Your task to perform on an android device: Search for pizza restaurants on Maps Image 0: 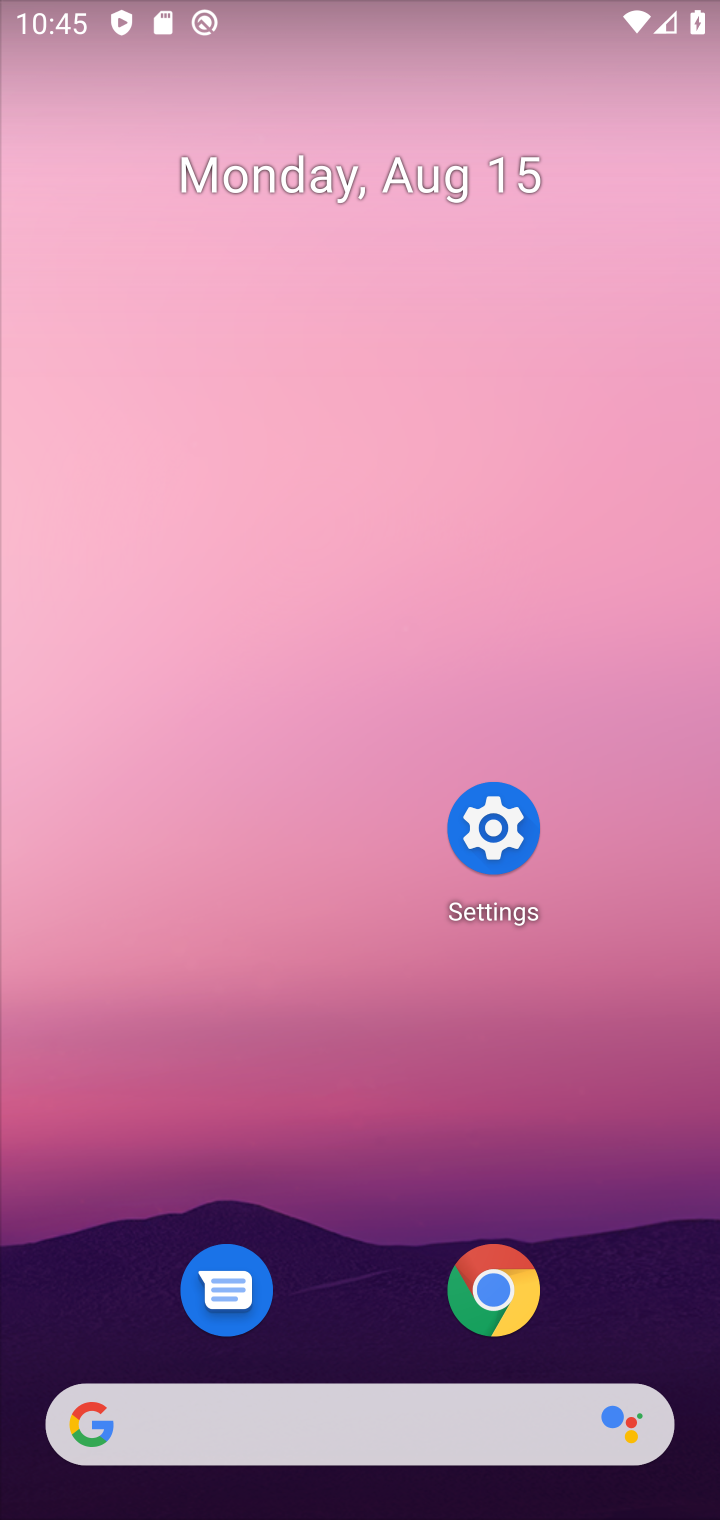
Step 0: press home button
Your task to perform on an android device: Search for pizza restaurants on Maps Image 1: 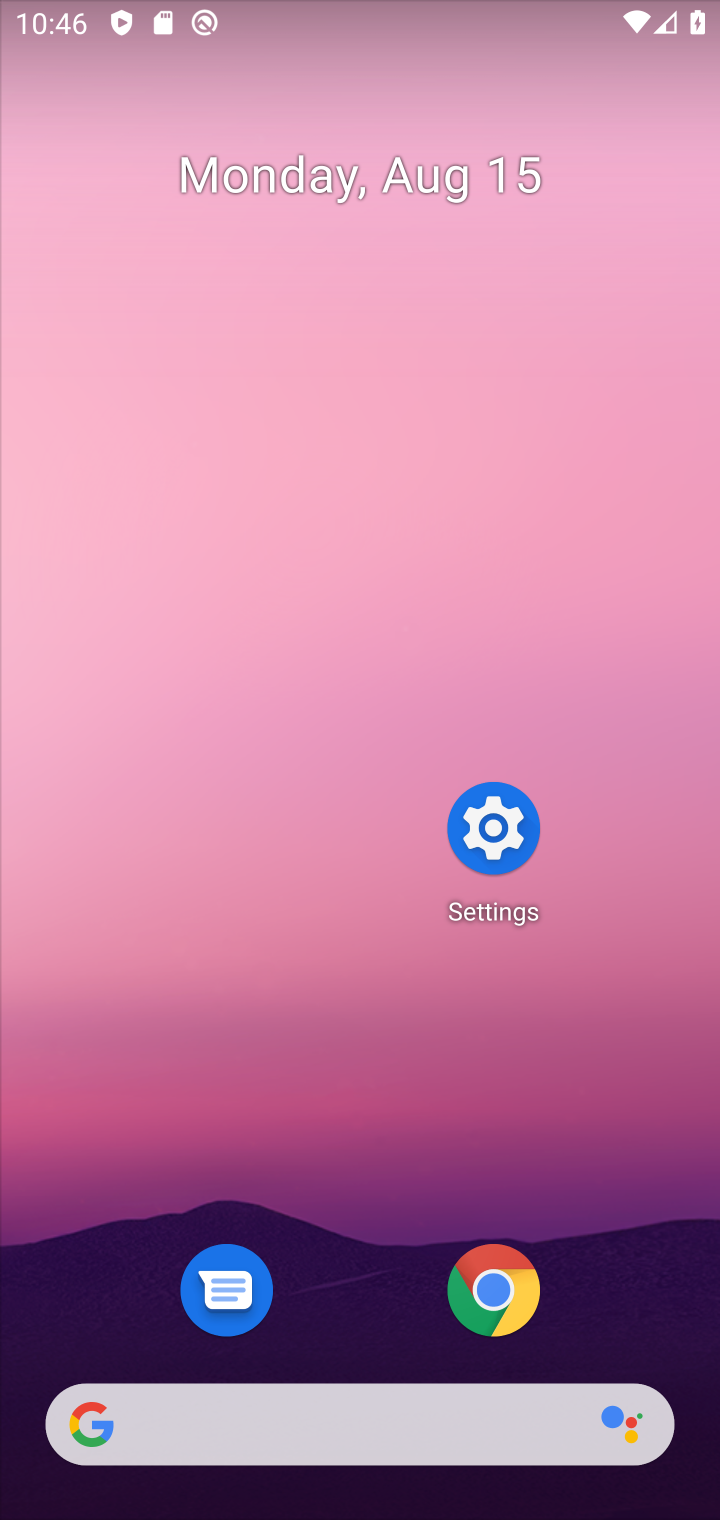
Step 1: drag from (328, 1427) to (638, 313)
Your task to perform on an android device: Search for pizza restaurants on Maps Image 2: 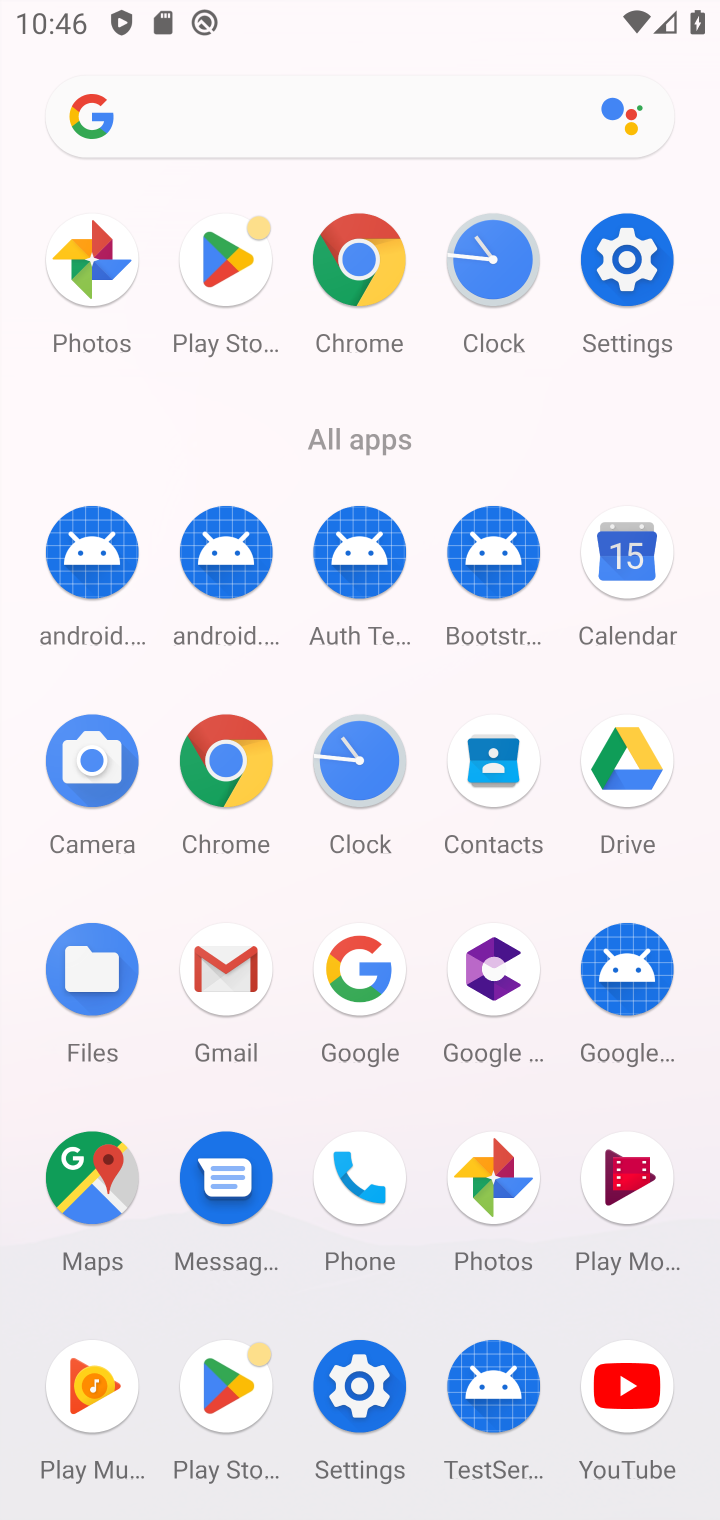
Step 2: click (84, 1191)
Your task to perform on an android device: Search for pizza restaurants on Maps Image 3: 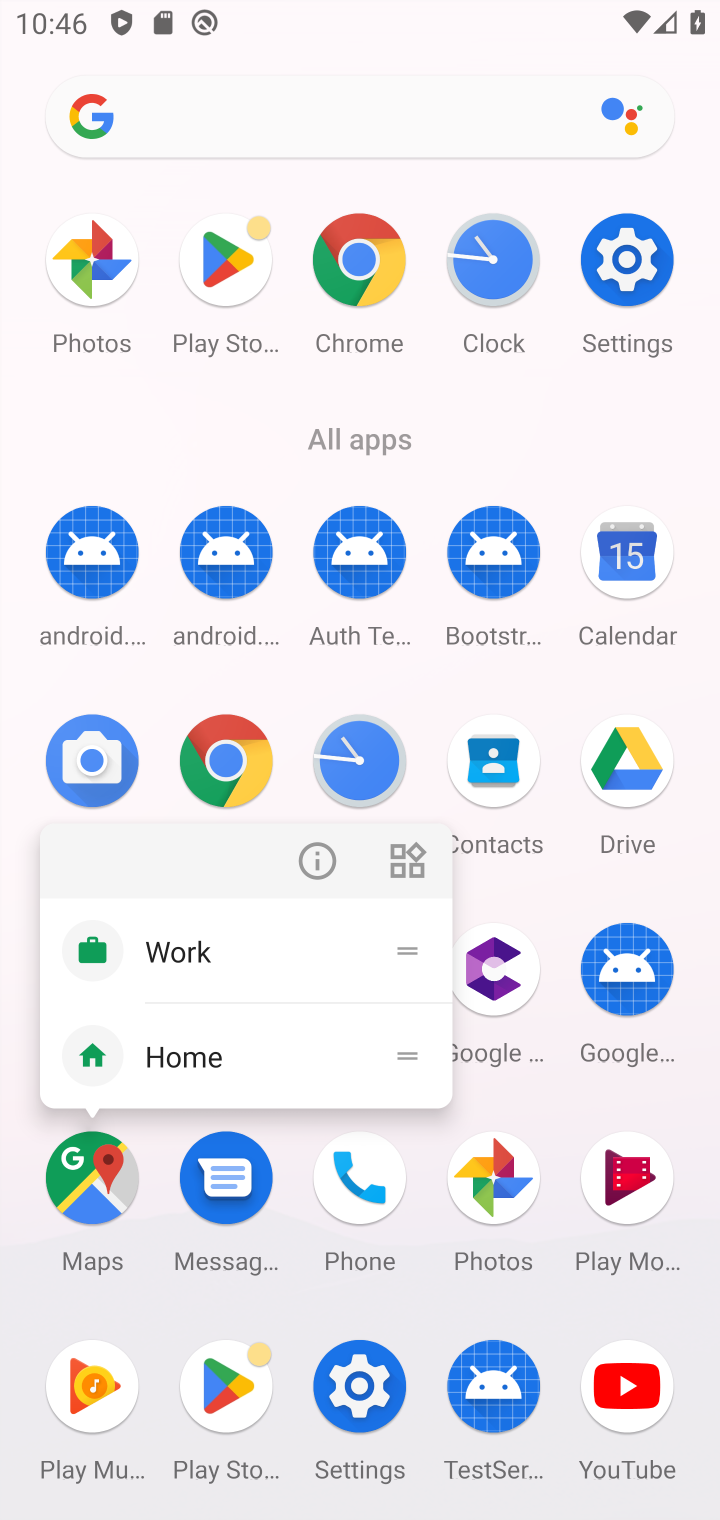
Step 3: click (84, 1196)
Your task to perform on an android device: Search for pizza restaurants on Maps Image 4: 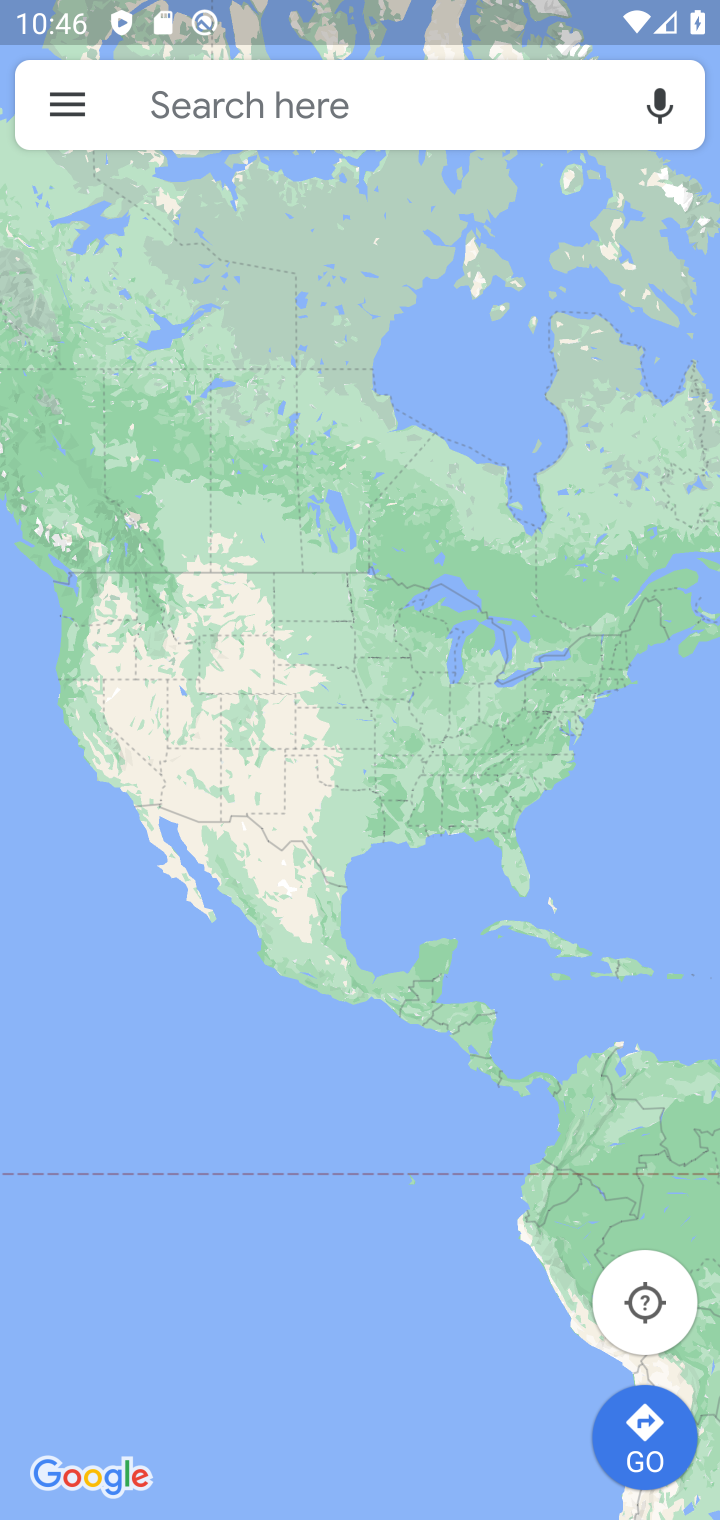
Step 4: click (359, 104)
Your task to perform on an android device: Search for pizza restaurants on Maps Image 5: 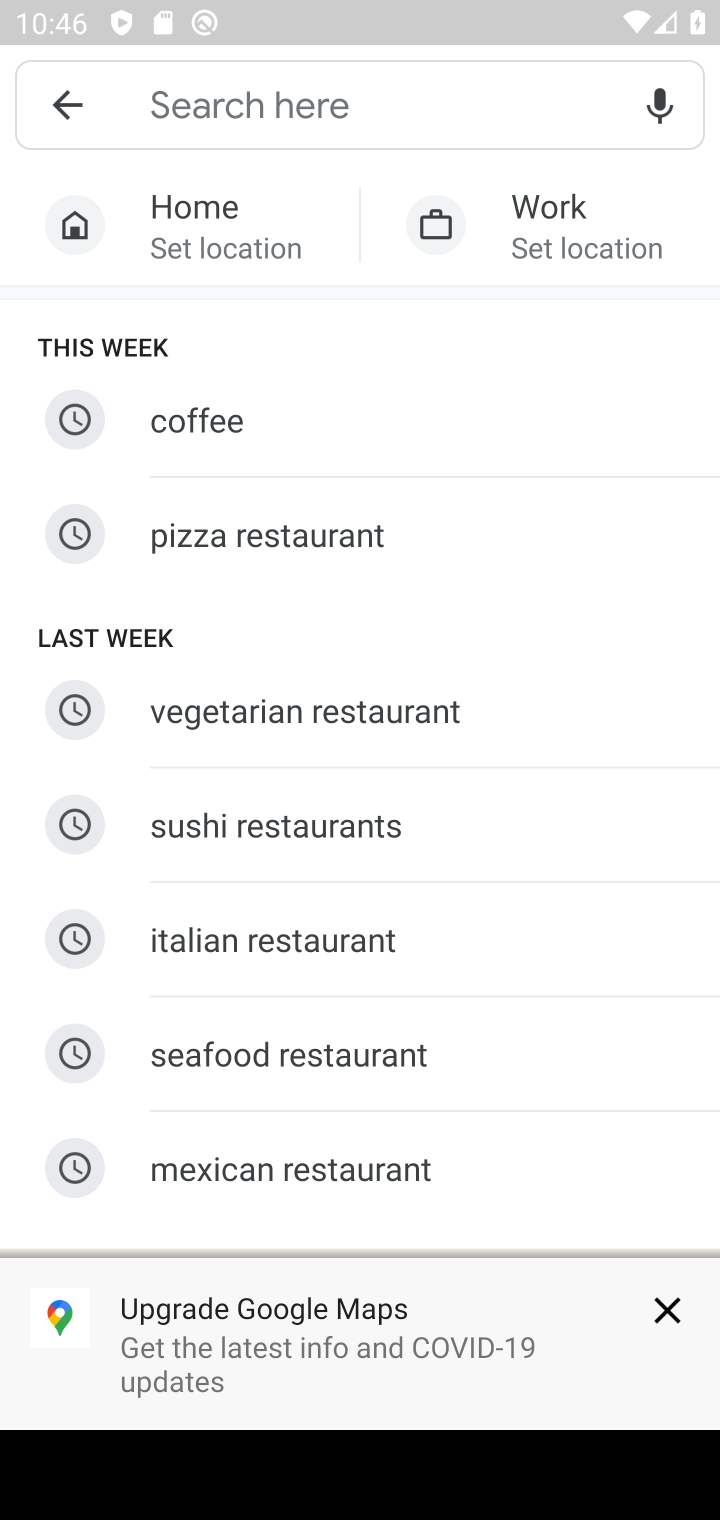
Step 5: click (348, 539)
Your task to perform on an android device: Search for pizza restaurants on Maps Image 6: 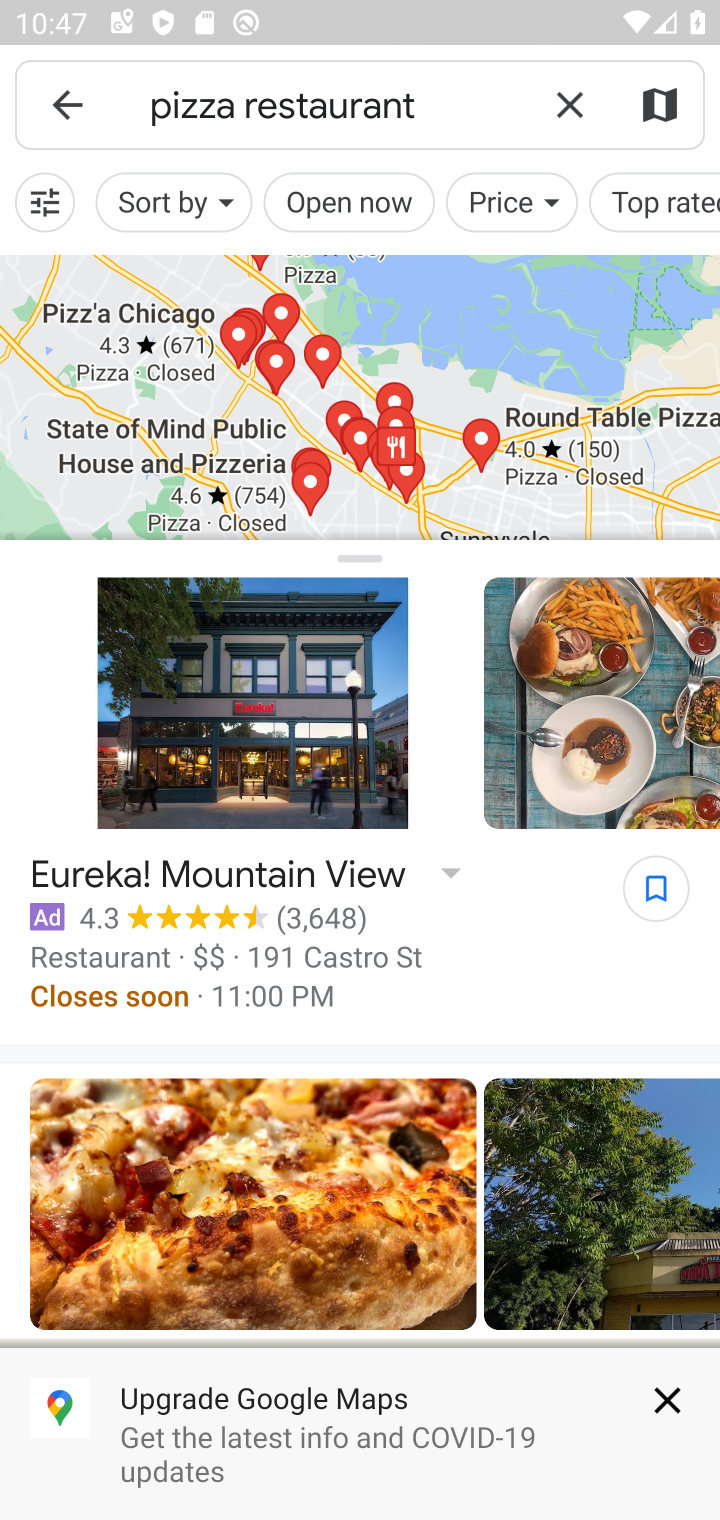
Step 6: task complete